Your task to perform on an android device: Open eBay Image 0: 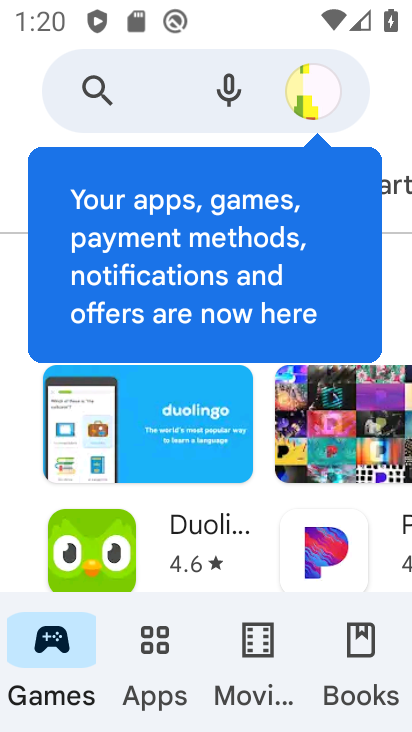
Step 0: press home button
Your task to perform on an android device: Open eBay Image 1: 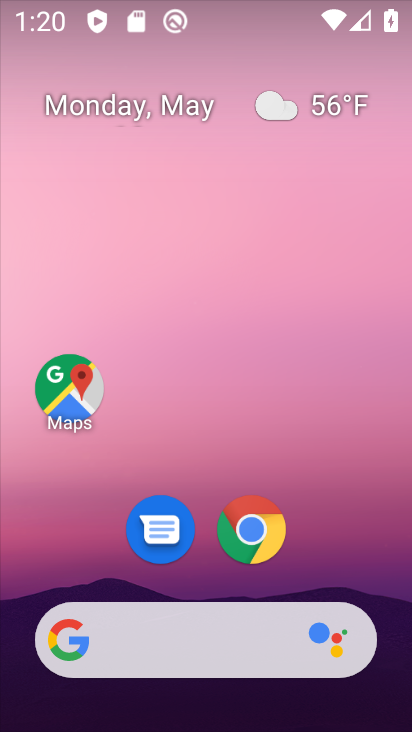
Step 1: click (259, 527)
Your task to perform on an android device: Open eBay Image 2: 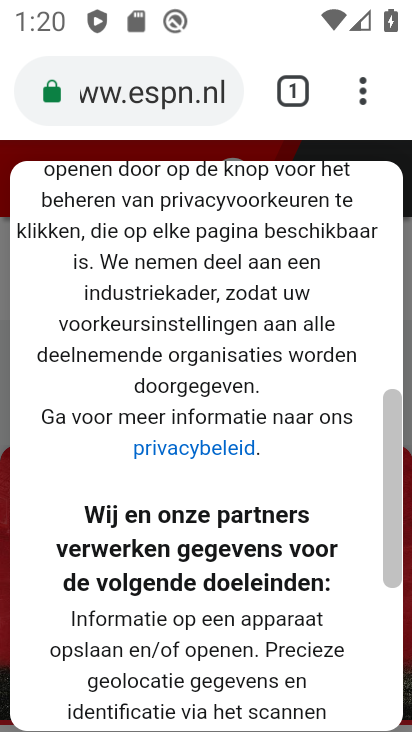
Step 2: click (182, 100)
Your task to perform on an android device: Open eBay Image 3: 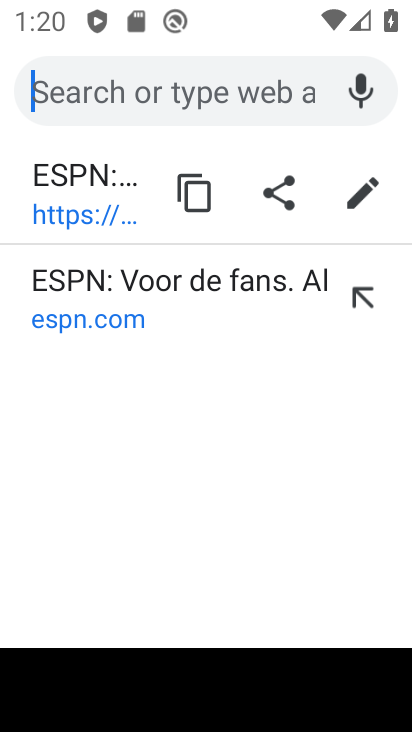
Step 3: type "ebay"
Your task to perform on an android device: Open eBay Image 4: 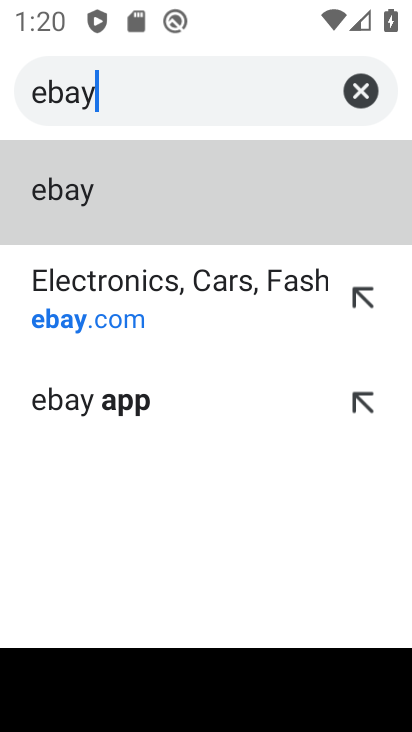
Step 4: click (89, 208)
Your task to perform on an android device: Open eBay Image 5: 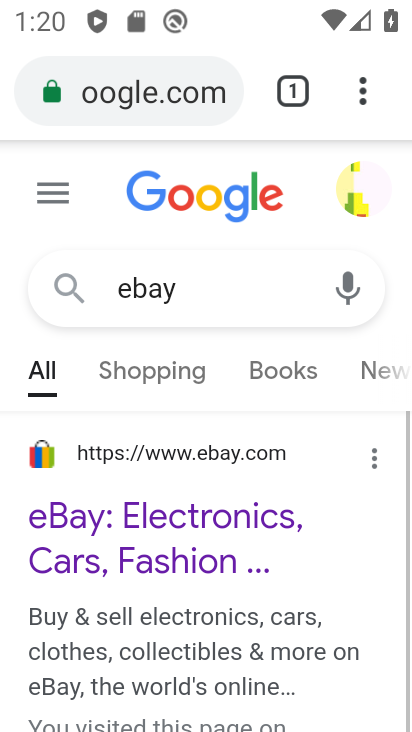
Step 5: click (64, 549)
Your task to perform on an android device: Open eBay Image 6: 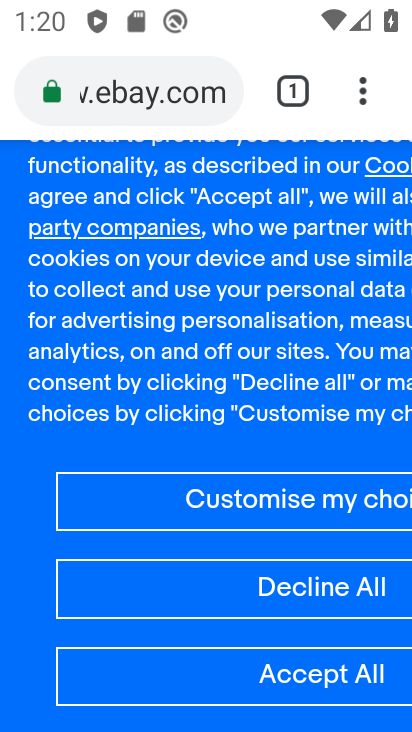
Step 6: task complete